Your task to perform on an android device: What's the weather? Image 0: 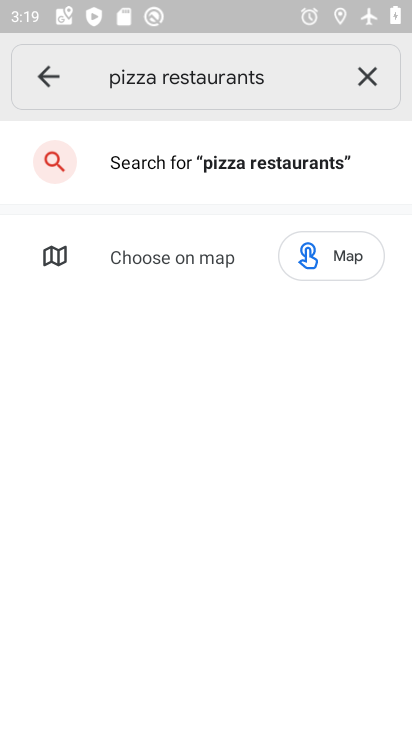
Step 0: press home button
Your task to perform on an android device: What's the weather? Image 1: 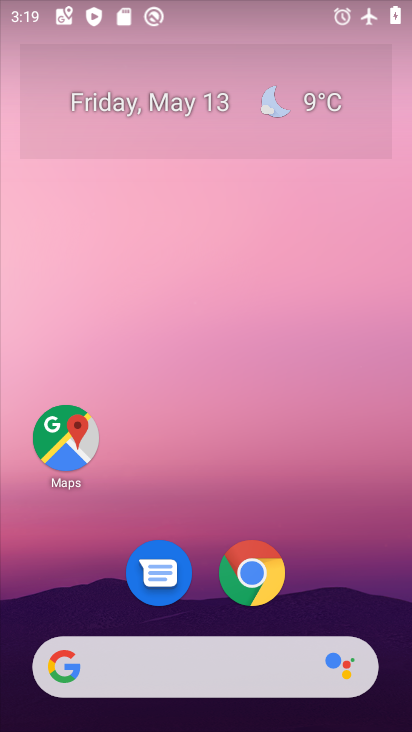
Step 1: drag from (344, 599) to (269, 142)
Your task to perform on an android device: What's the weather? Image 2: 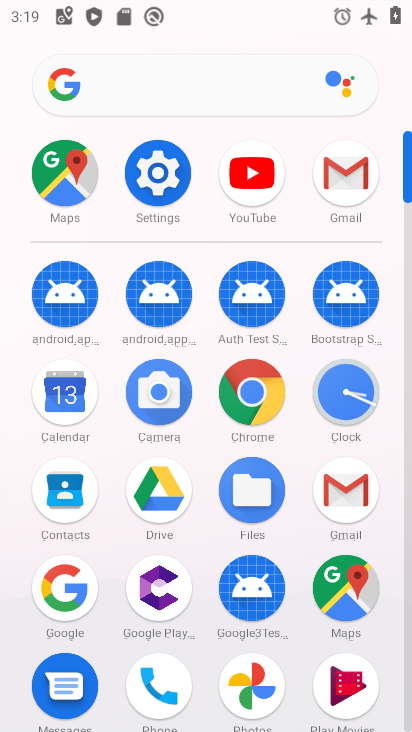
Step 2: drag from (219, 494) to (205, 378)
Your task to perform on an android device: What's the weather? Image 3: 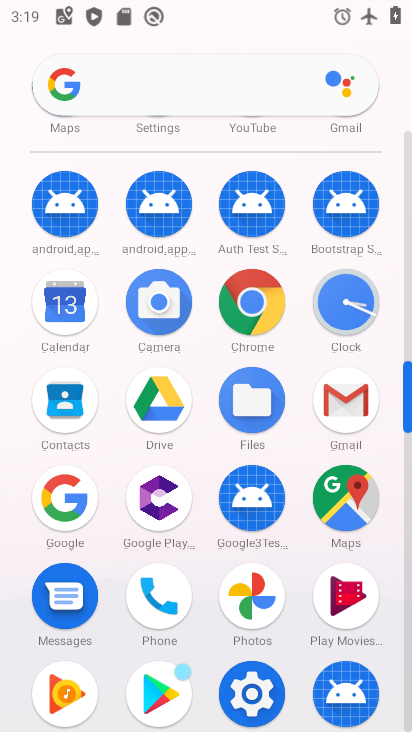
Step 3: click (63, 496)
Your task to perform on an android device: What's the weather? Image 4: 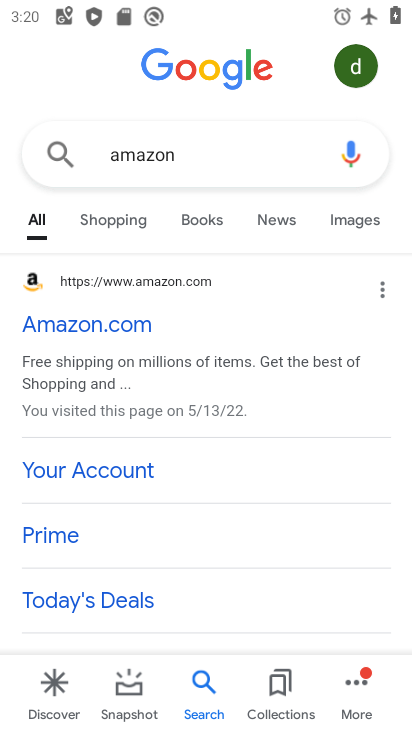
Step 4: click (215, 157)
Your task to perform on an android device: What's the weather? Image 5: 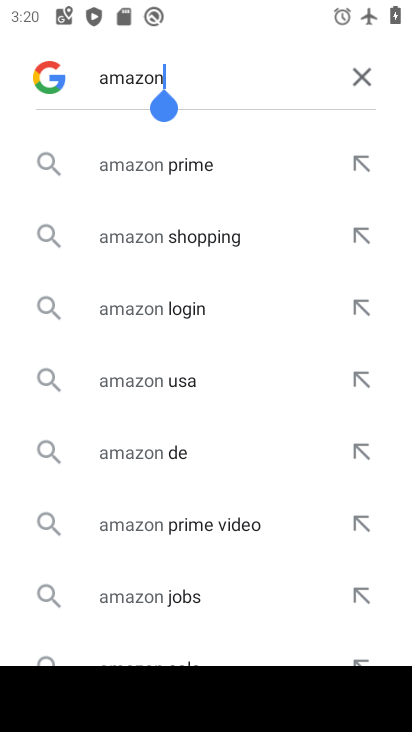
Step 5: click (361, 83)
Your task to perform on an android device: What's the weather? Image 6: 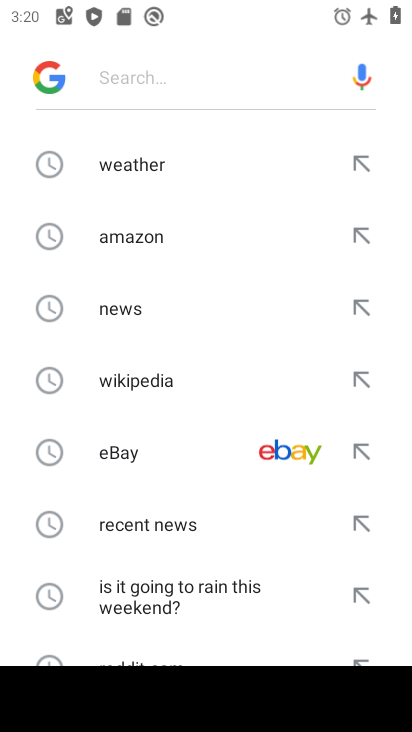
Step 6: type "weather"
Your task to perform on an android device: What's the weather? Image 7: 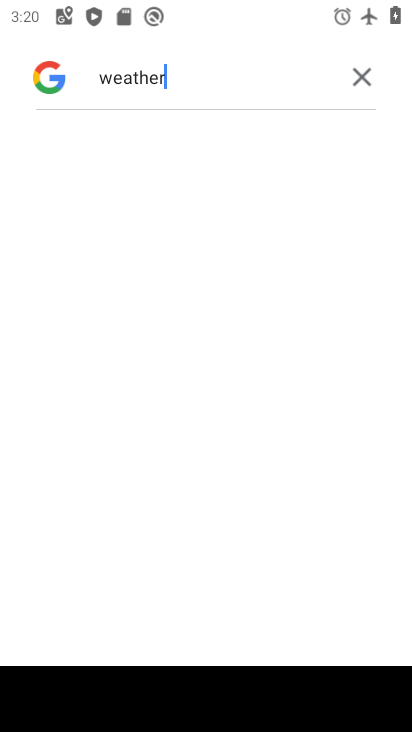
Step 7: click (185, 92)
Your task to perform on an android device: What's the weather? Image 8: 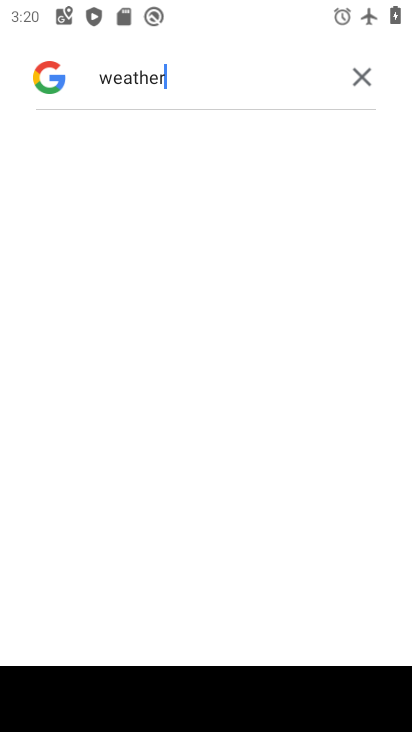
Step 8: task complete